Your task to perform on an android device: Check the news Image 0: 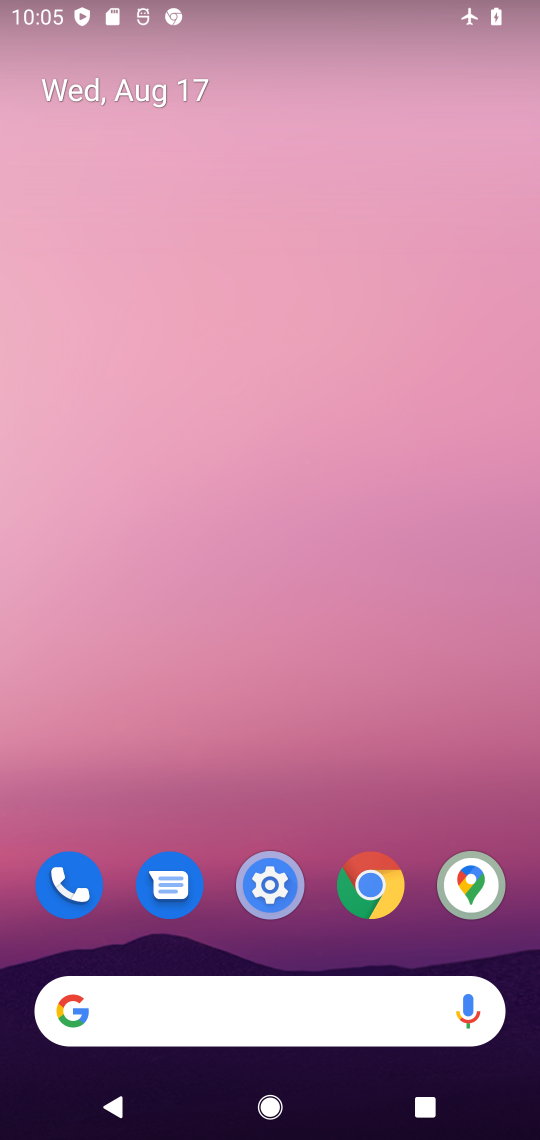
Step 0: drag from (3, 517) to (537, 532)
Your task to perform on an android device: Check the news Image 1: 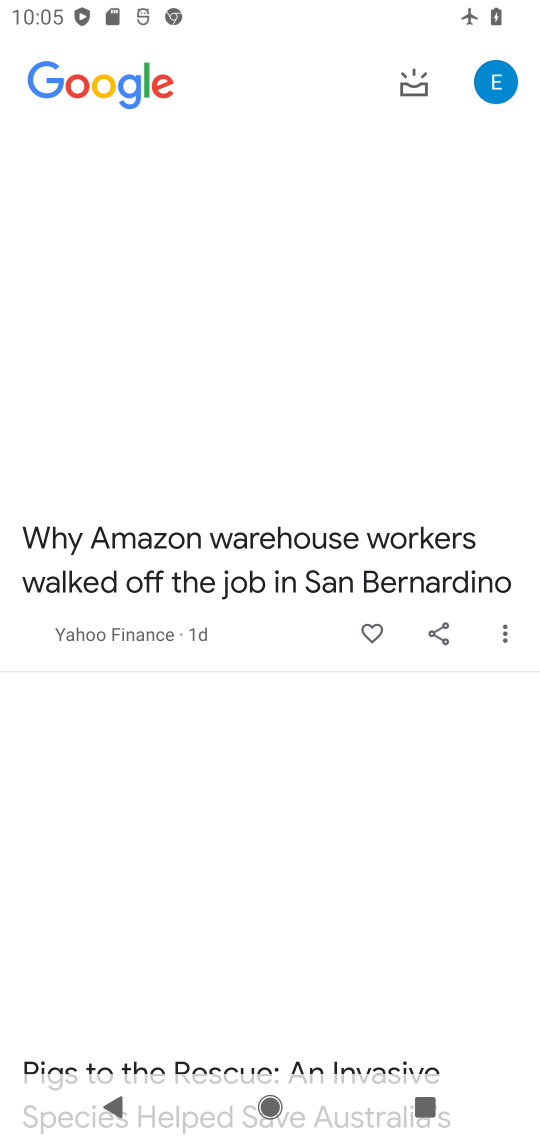
Step 1: task complete